Your task to perform on an android device: Toggle the flashlight Image 0: 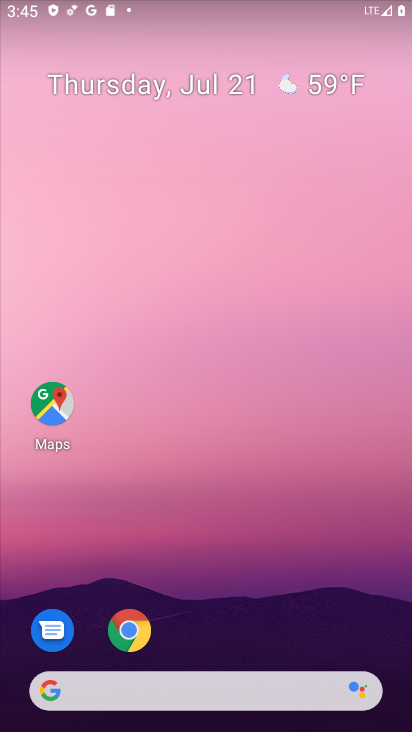
Step 0: drag from (184, 506) to (194, 180)
Your task to perform on an android device: Toggle the flashlight Image 1: 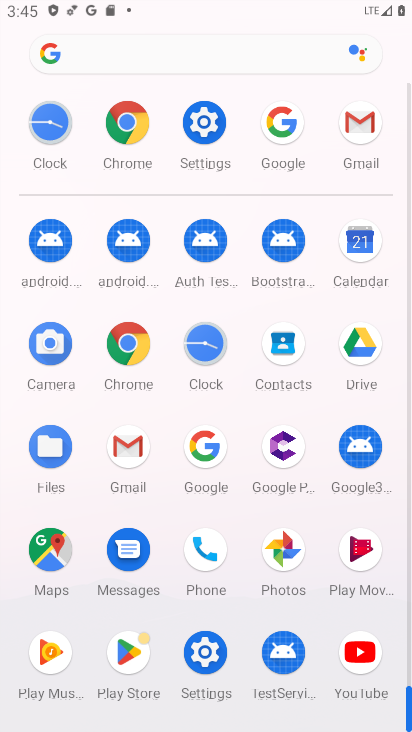
Step 1: task complete